Your task to perform on an android device: Turn on the flashlight Image 0: 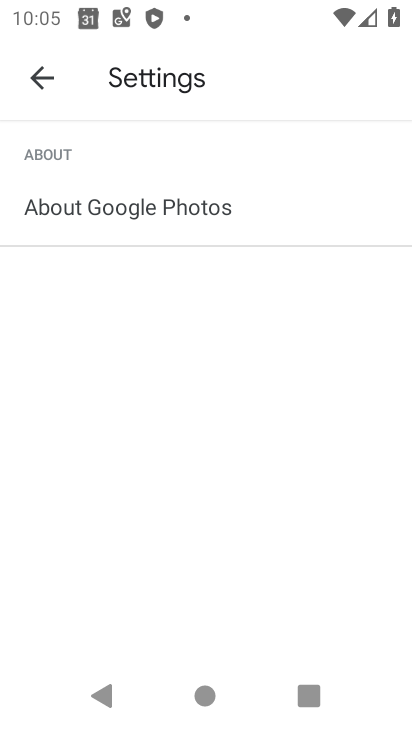
Step 0: press home button
Your task to perform on an android device: Turn on the flashlight Image 1: 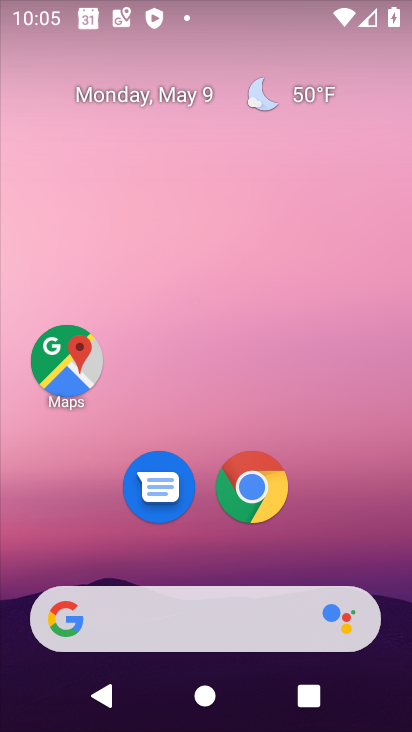
Step 1: drag from (17, 615) to (207, 190)
Your task to perform on an android device: Turn on the flashlight Image 2: 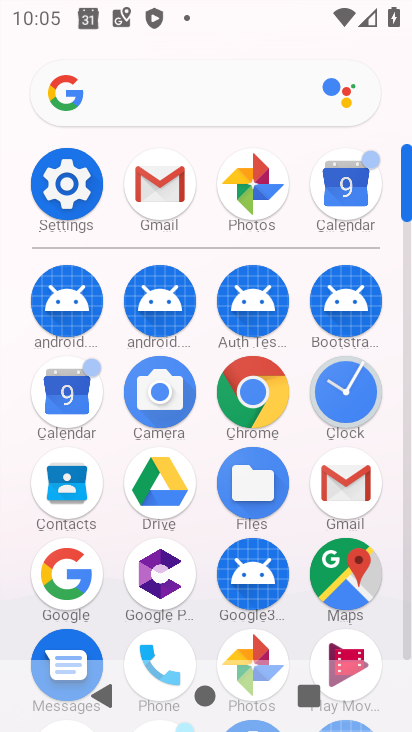
Step 2: click (31, 197)
Your task to perform on an android device: Turn on the flashlight Image 3: 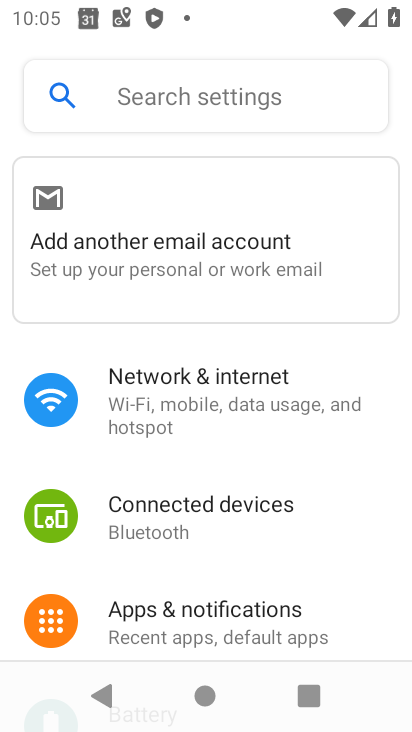
Step 3: click (211, 487)
Your task to perform on an android device: Turn on the flashlight Image 4: 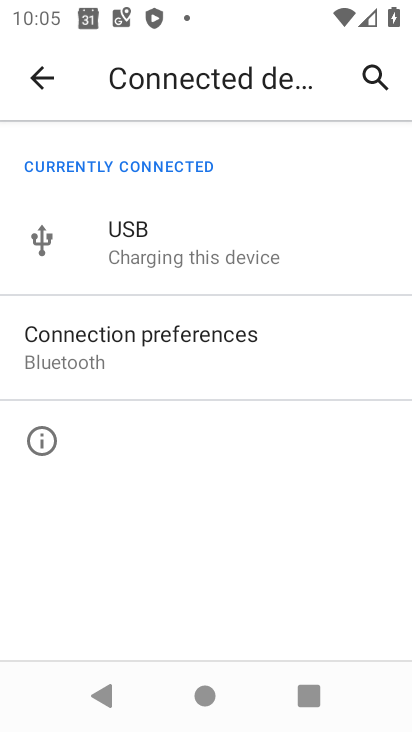
Step 4: task complete